Your task to perform on an android device: turn on translation in the chrome app Image 0: 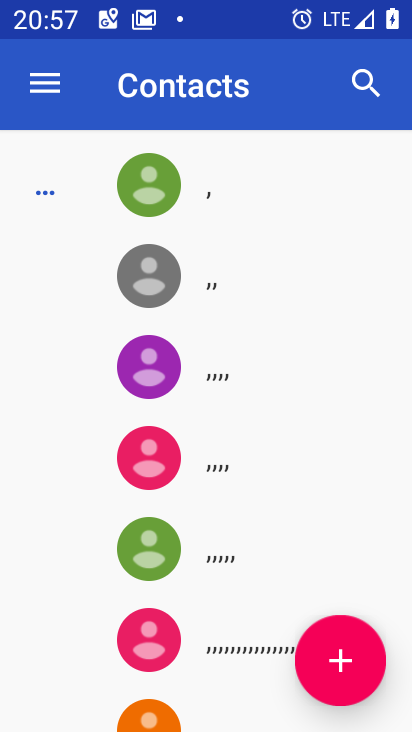
Step 0: press home button
Your task to perform on an android device: turn on translation in the chrome app Image 1: 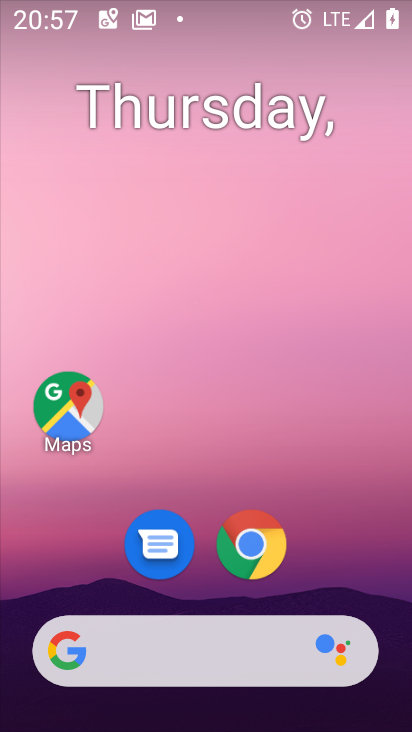
Step 1: click (256, 541)
Your task to perform on an android device: turn on translation in the chrome app Image 2: 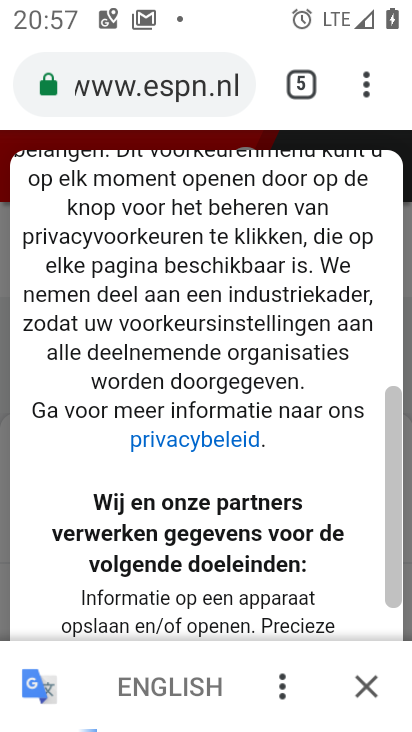
Step 2: click (349, 78)
Your task to perform on an android device: turn on translation in the chrome app Image 3: 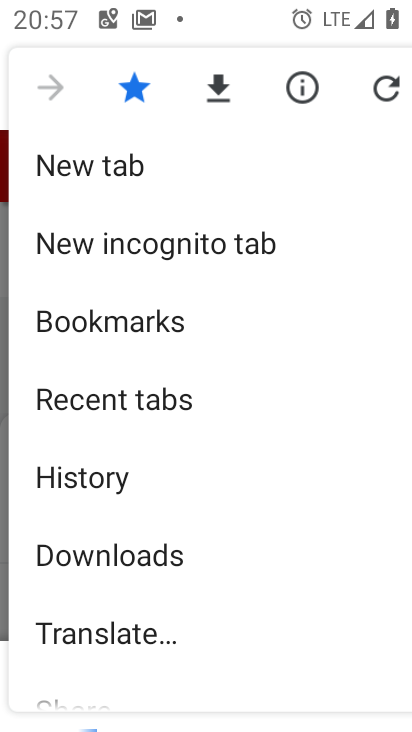
Step 3: drag from (96, 663) to (191, 202)
Your task to perform on an android device: turn on translation in the chrome app Image 4: 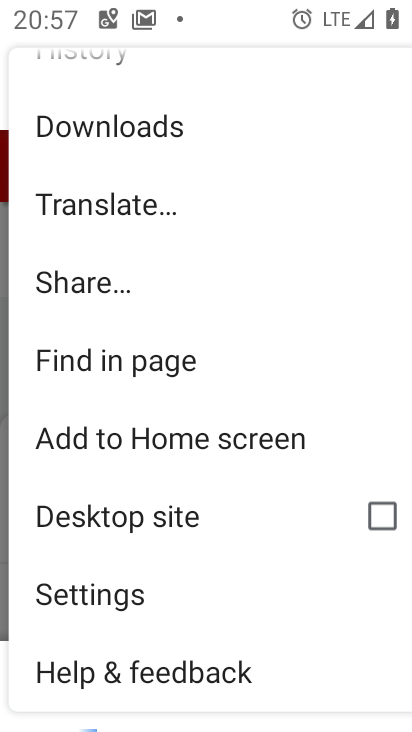
Step 4: click (162, 614)
Your task to perform on an android device: turn on translation in the chrome app Image 5: 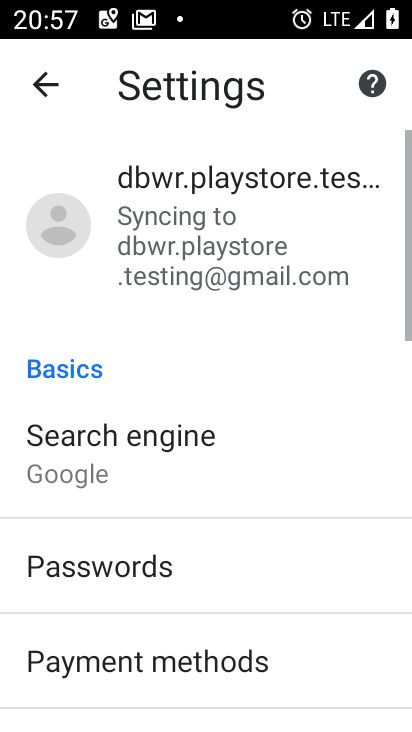
Step 5: drag from (162, 614) to (202, 193)
Your task to perform on an android device: turn on translation in the chrome app Image 6: 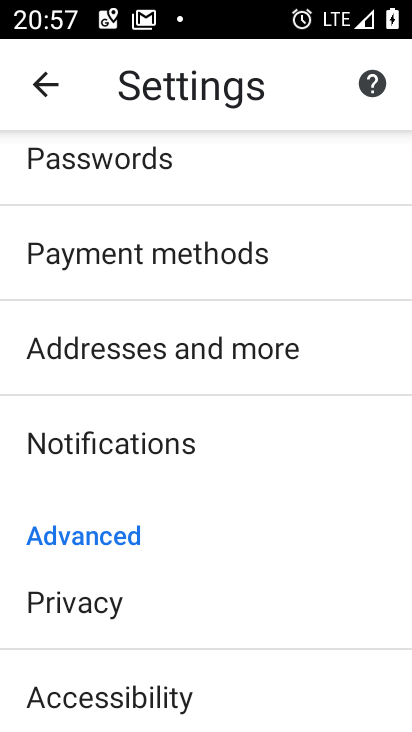
Step 6: drag from (103, 636) to (184, 129)
Your task to perform on an android device: turn on translation in the chrome app Image 7: 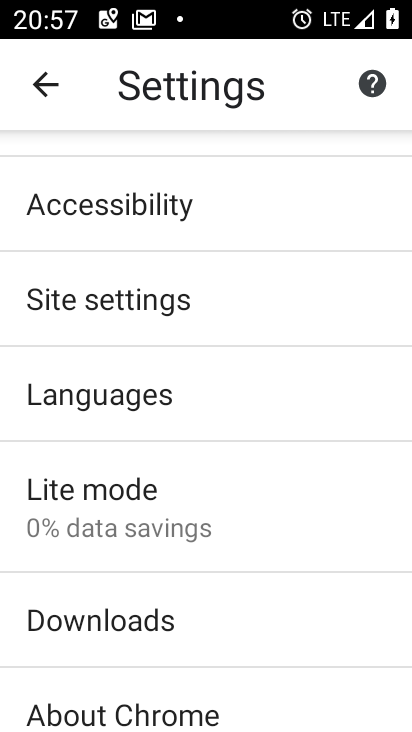
Step 7: click (161, 391)
Your task to perform on an android device: turn on translation in the chrome app Image 8: 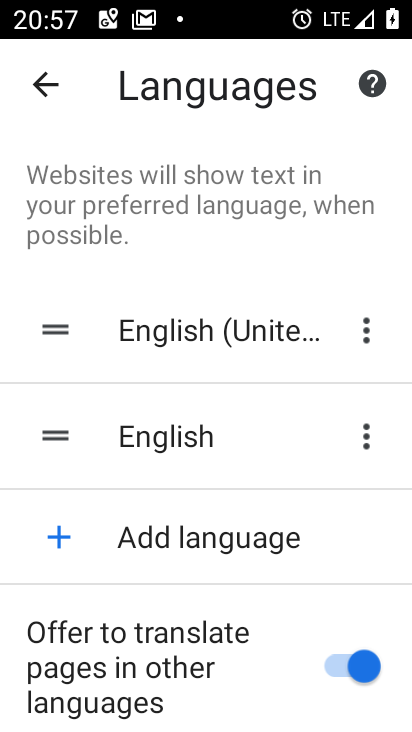
Step 8: task complete